Your task to perform on an android device: When is my next appointment? Image 0: 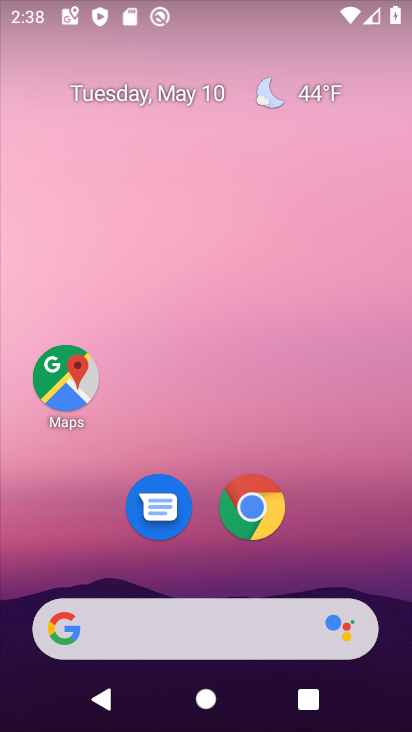
Step 0: drag from (242, 722) to (245, 250)
Your task to perform on an android device: When is my next appointment? Image 1: 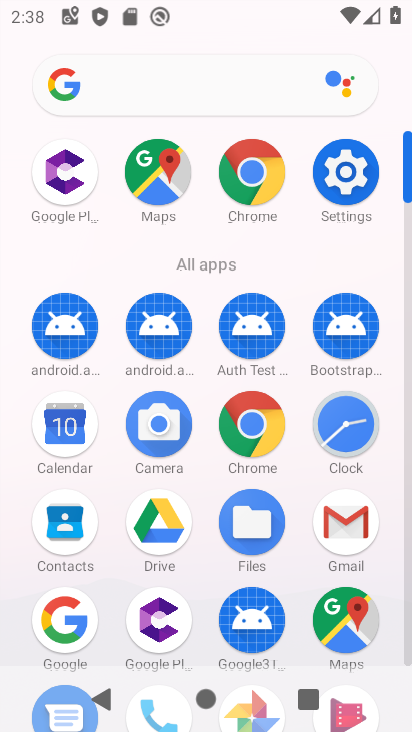
Step 1: click (69, 427)
Your task to perform on an android device: When is my next appointment? Image 2: 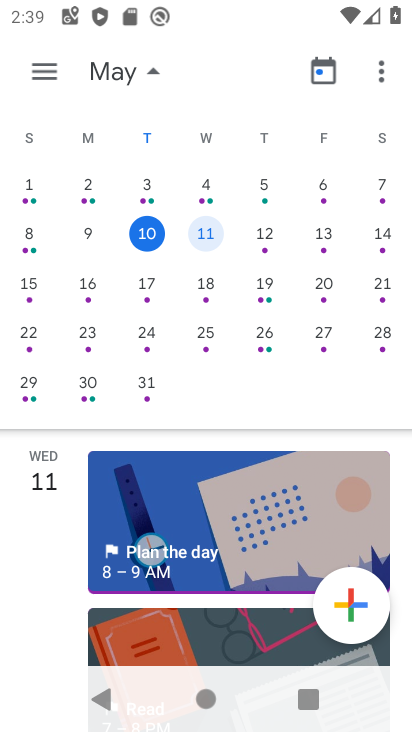
Step 2: click (206, 233)
Your task to perform on an android device: When is my next appointment? Image 3: 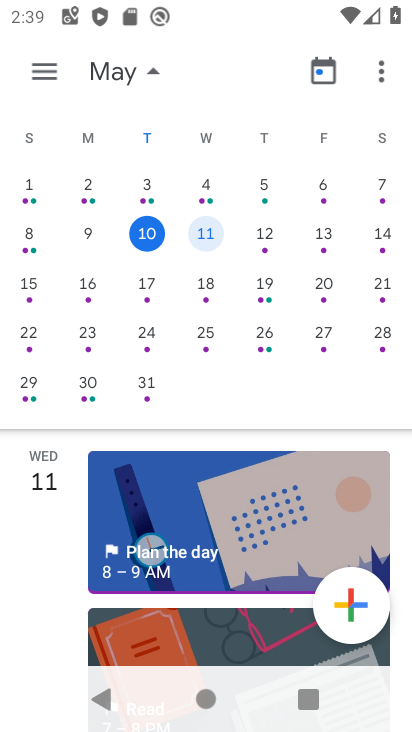
Step 3: click (149, 72)
Your task to perform on an android device: When is my next appointment? Image 4: 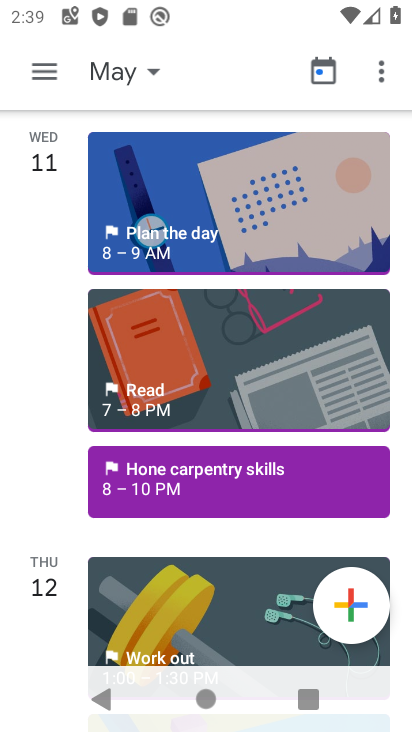
Step 4: task complete